Your task to perform on an android device: Open calendar and show me the third week of next month Image 0: 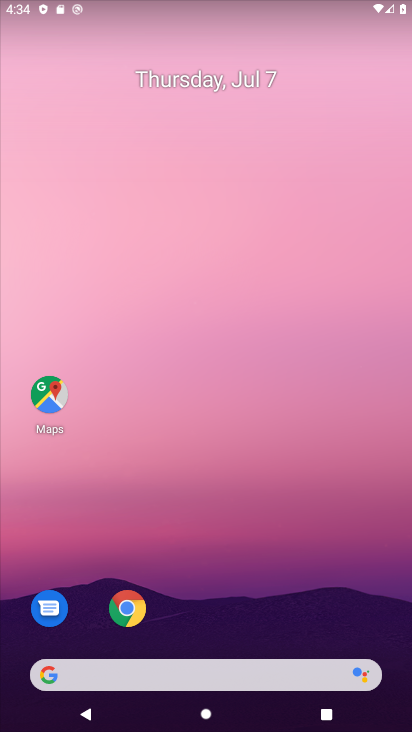
Step 0: press home button
Your task to perform on an android device: Open calendar and show me the third week of next month Image 1: 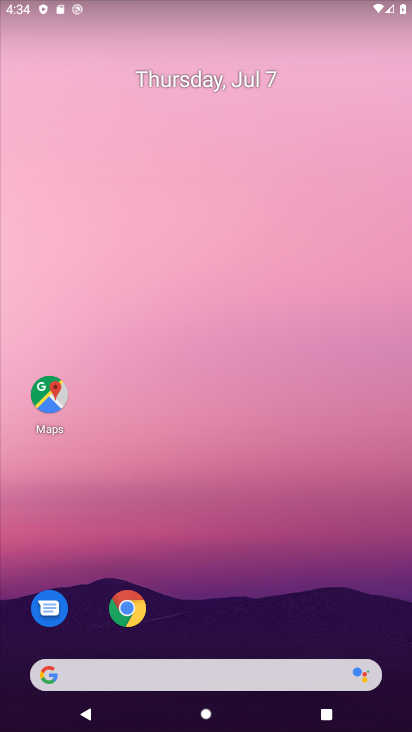
Step 1: drag from (228, 623) to (220, 73)
Your task to perform on an android device: Open calendar and show me the third week of next month Image 2: 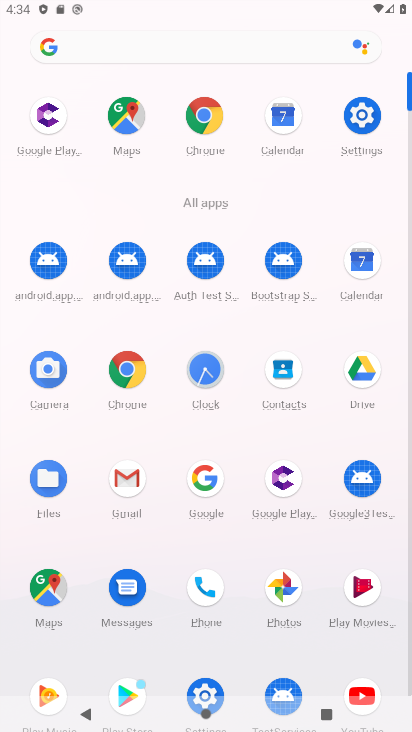
Step 2: click (364, 268)
Your task to perform on an android device: Open calendar and show me the third week of next month Image 3: 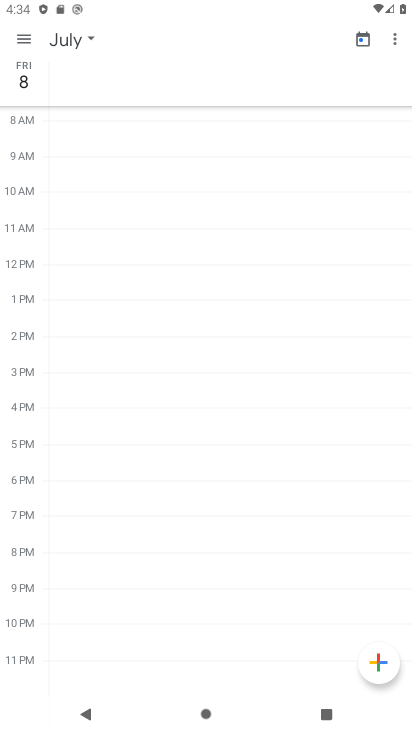
Step 3: click (18, 35)
Your task to perform on an android device: Open calendar and show me the third week of next month Image 4: 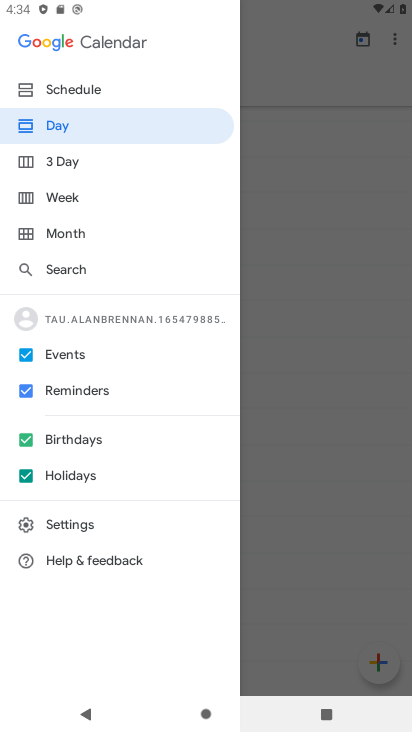
Step 4: click (68, 199)
Your task to perform on an android device: Open calendar and show me the third week of next month Image 5: 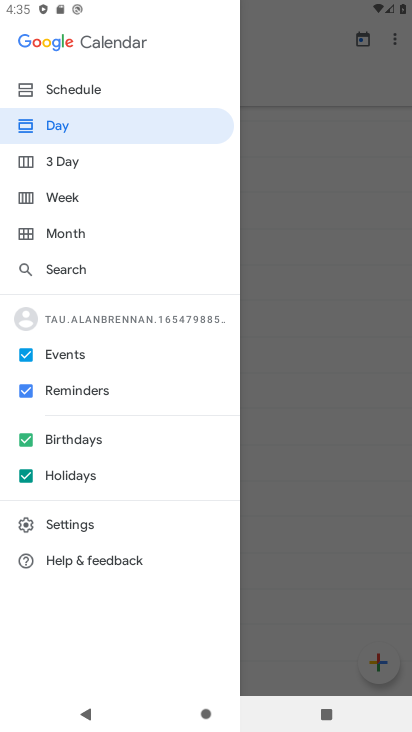
Step 5: click (63, 191)
Your task to perform on an android device: Open calendar and show me the third week of next month Image 6: 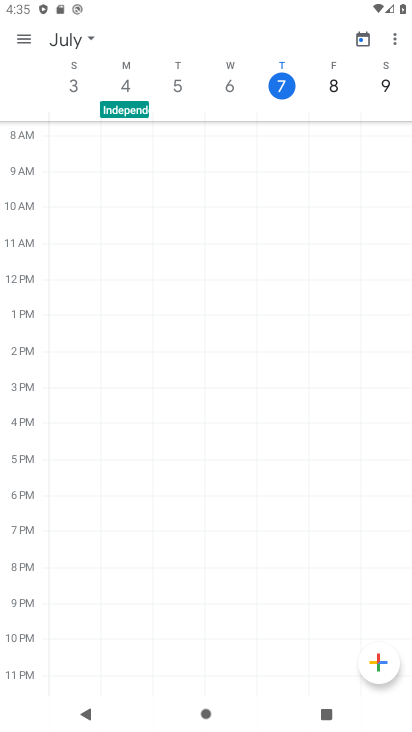
Step 6: click (84, 37)
Your task to perform on an android device: Open calendar and show me the third week of next month Image 7: 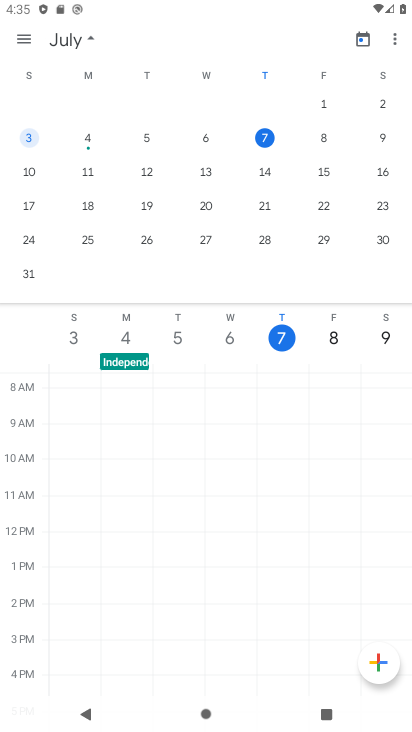
Step 7: drag from (352, 181) to (102, 167)
Your task to perform on an android device: Open calendar and show me the third week of next month Image 8: 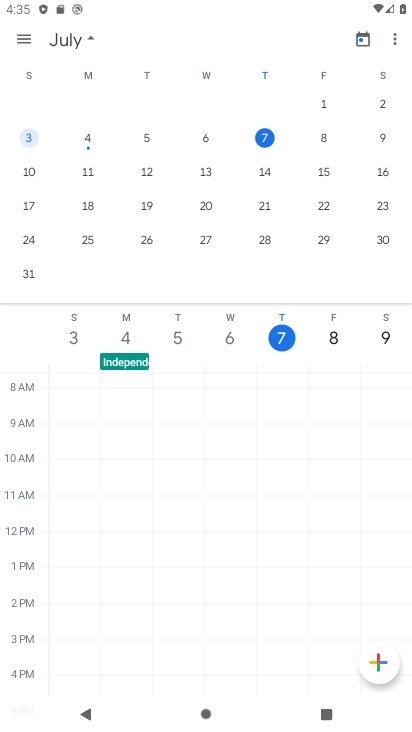
Step 8: drag from (360, 177) to (0, 174)
Your task to perform on an android device: Open calendar and show me the third week of next month Image 9: 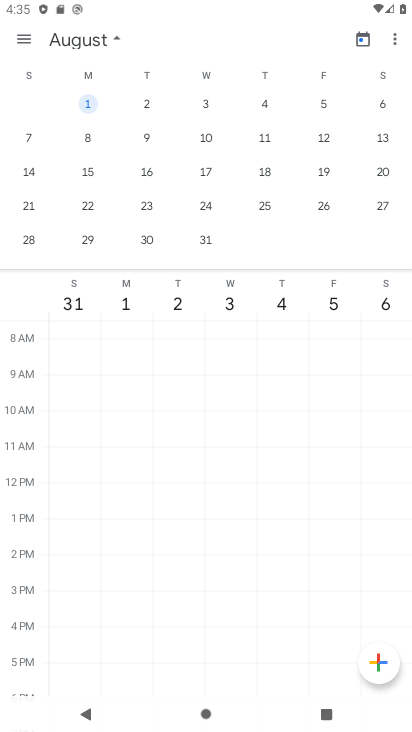
Step 9: click (26, 172)
Your task to perform on an android device: Open calendar and show me the third week of next month Image 10: 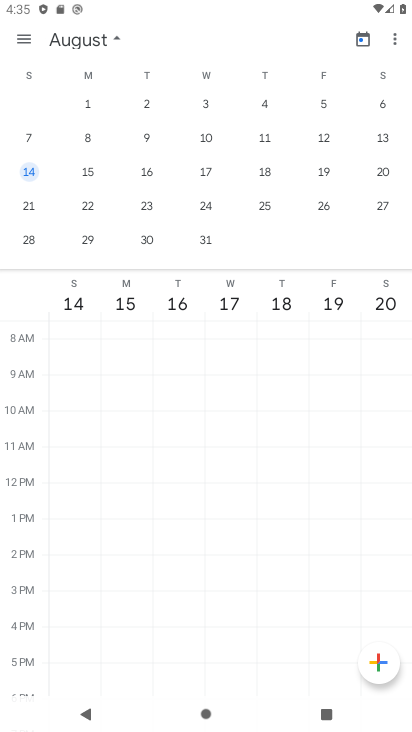
Step 10: task complete